Your task to perform on an android device: turn on javascript in the chrome app Image 0: 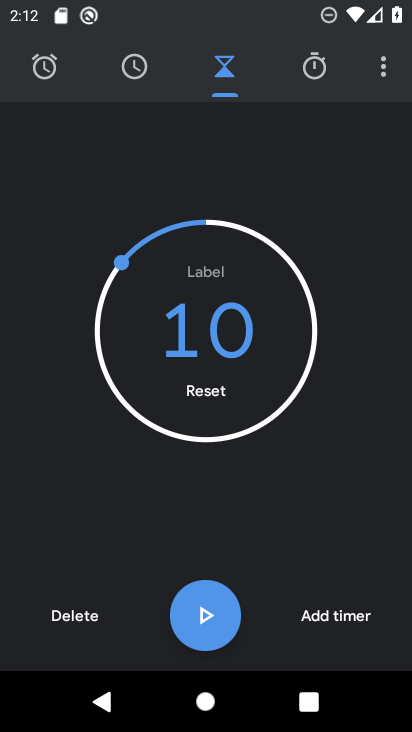
Step 0: press home button
Your task to perform on an android device: turn on javascript in the chrome app Image 1: 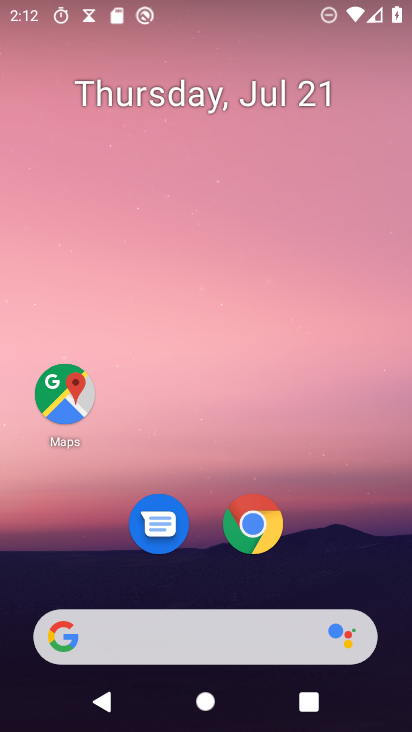
Step 1: click (253, 527)
Your task to perform on an android device: turn on javascript in the chrome app Image 2: 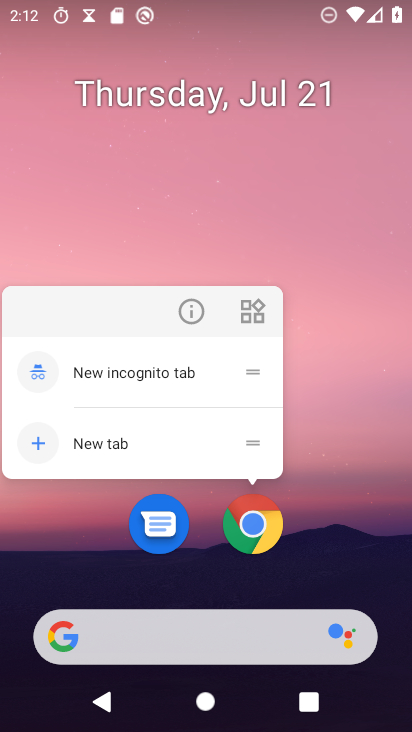
Step 2: click (261, 523)
Your task to perform on an android device: turn on javascript in the chrome app Image 3: 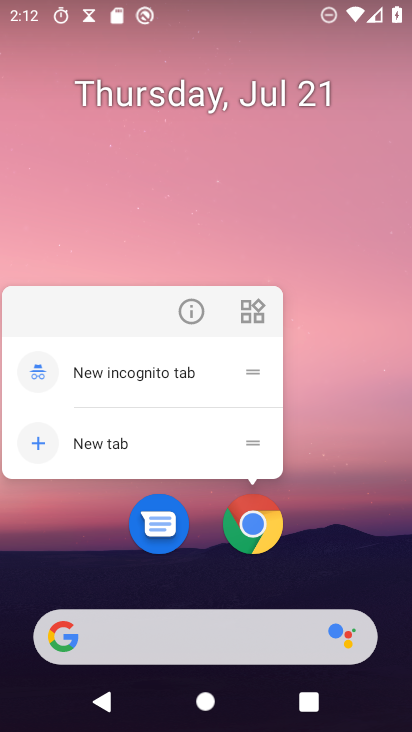
Step 3: click (250, 536)
Your task to perform on an android device: turn on javascript in the chrome app Image 4: 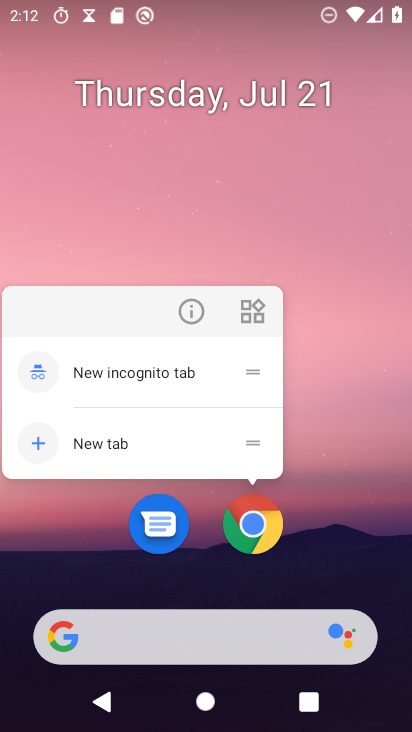
Step 4: click (256, 523)
Your task to perform on an android device: turn on javascript in the chrome app Image 5: 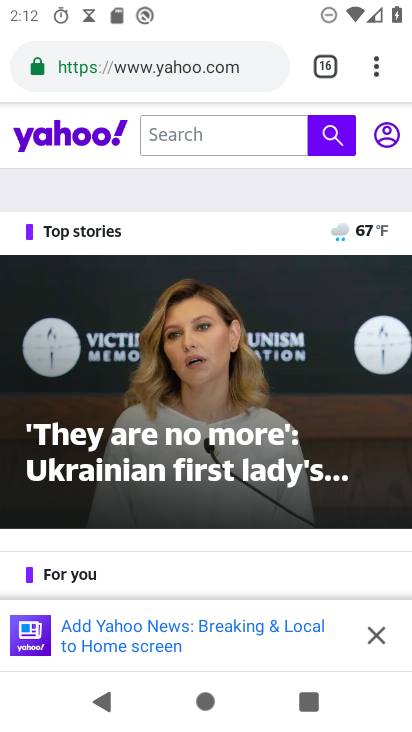
Step 5: drag from (376, 74) to (210, 520)
Your task to perform on an android device: turn on javascript in the chrome app Image 6: 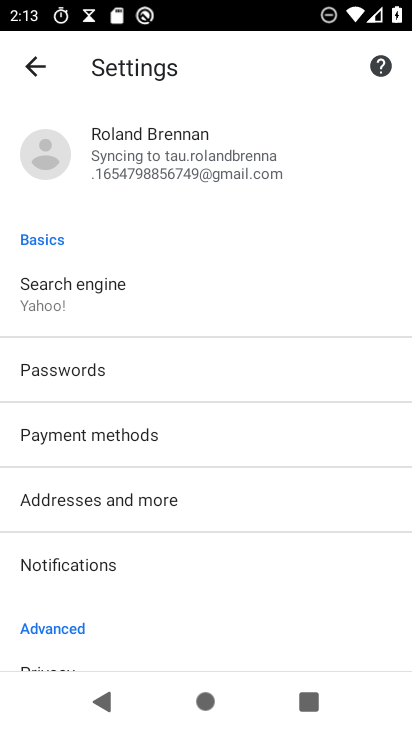
Step 6: drag from (226, 555) to (286, 151)
Your task to perform on an android device: turn on javascript in the chrome app Image 7: 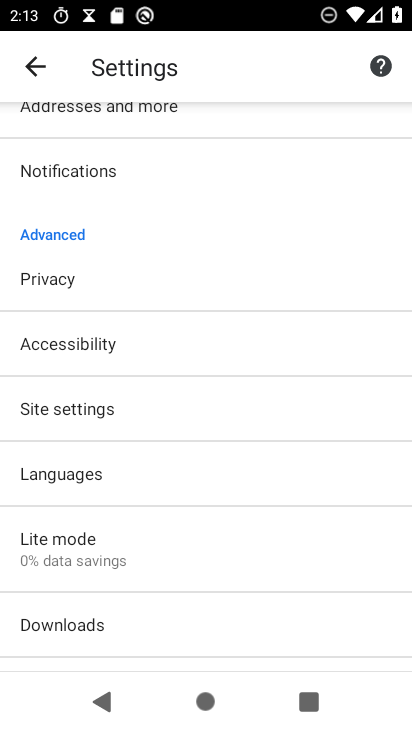
Step 7: click (76, 420)
Your task to perform on an android device: turn on javascript in the chrome app Image 8: 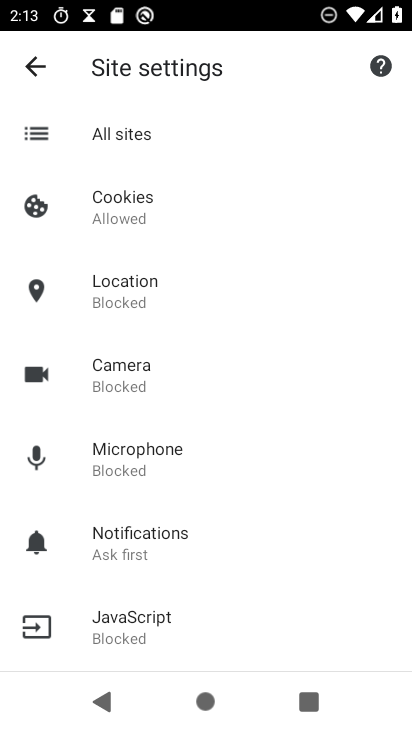
Step 8: drag from (183, 627) to (275, 267)
Your task to perform on an android device: turn on javascript in the chrome app Image 9: 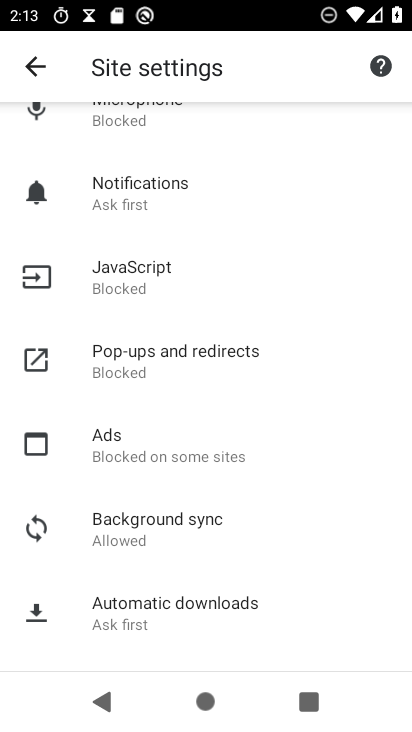
Step 9: click (127, 292)
Your task to perform on an android device: turn on javascript in the chrome app Image 10: 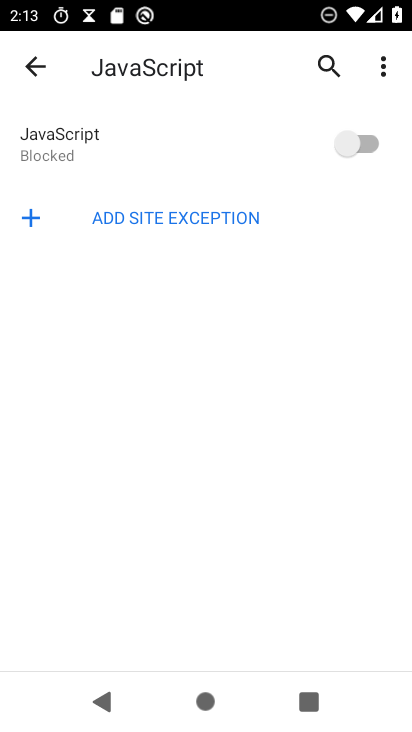
Step 10: click (375, 147)
Your task to perform on an android device: turn on javascript in the chrome app Image 11: 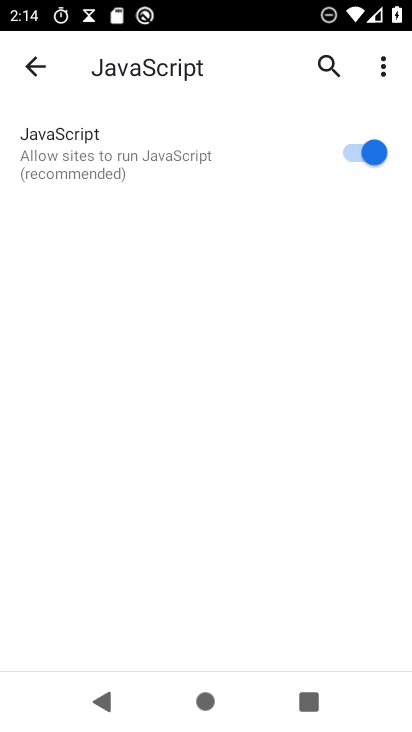
Step 11: task complete